Your task to perform on an android device: Go to Yahoo.com Image 0: 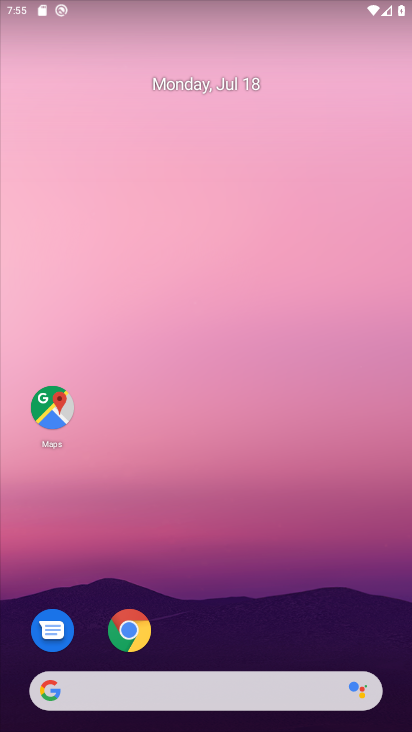
Step 0: click (134, 643)
Your task to perform on an android device: Go to Yahoo.com Image 1: 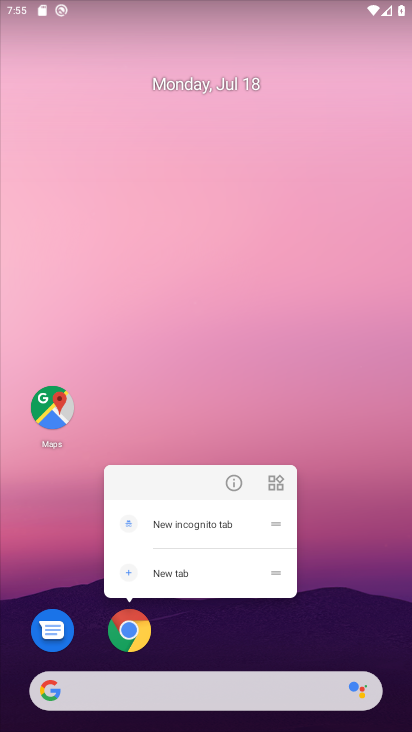
Step 1: click (117, 645)
Your task to perform on an android device: Go to Yahoo.com Image 2: 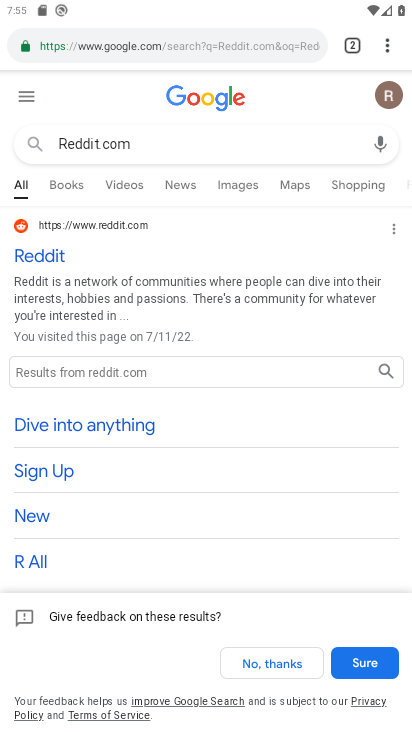
Step 2: click (387, 46)
Your task to perform on an android device: Go to Yahoo.com Image 3: 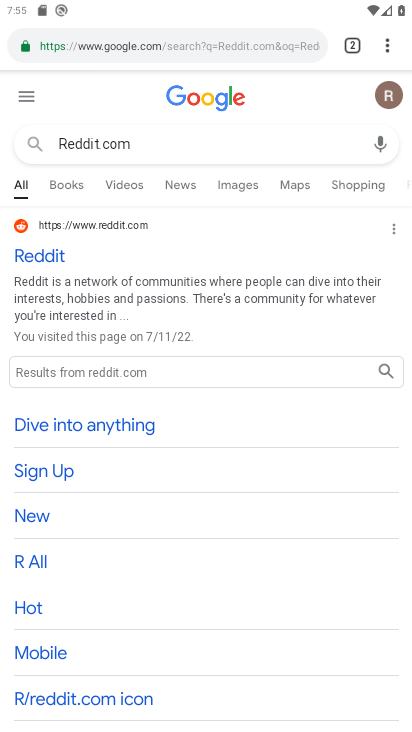
Step 3: click (393, 40)
Your task to perform on an android device: Go to Yahoo.com Image 4: 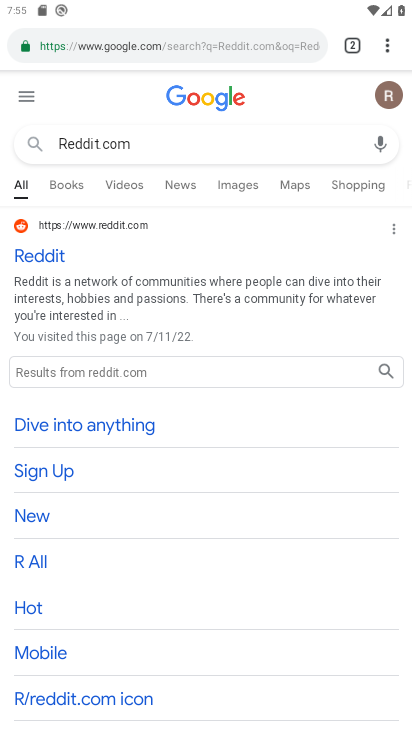
Step 4: click (383, 50)
Your task to perform on an android device: Go to Yahoo.com Image 5: 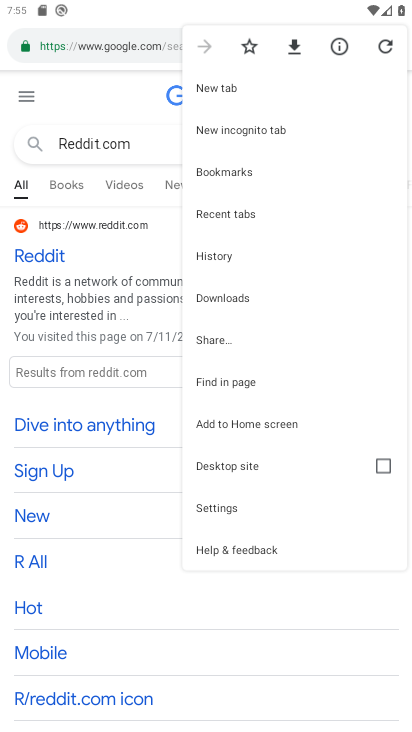
Step 5: click (225, 85)
Your task to perform on an android device: Go to Yahoo.com Image 6: 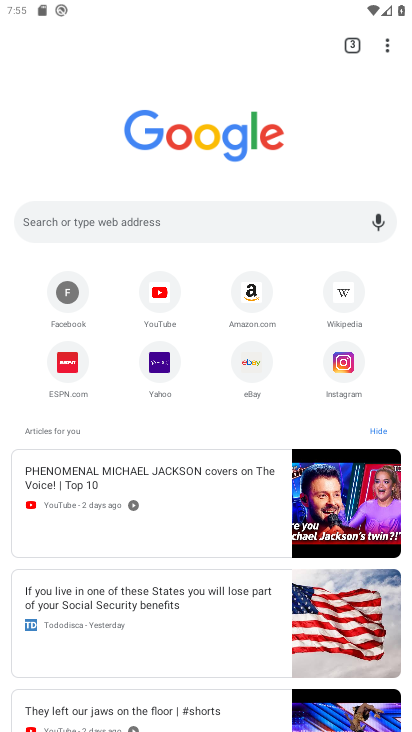
Step 6: click (165, 357)
Your task to perform on an android device: Go to Yahoo.com Image 7: 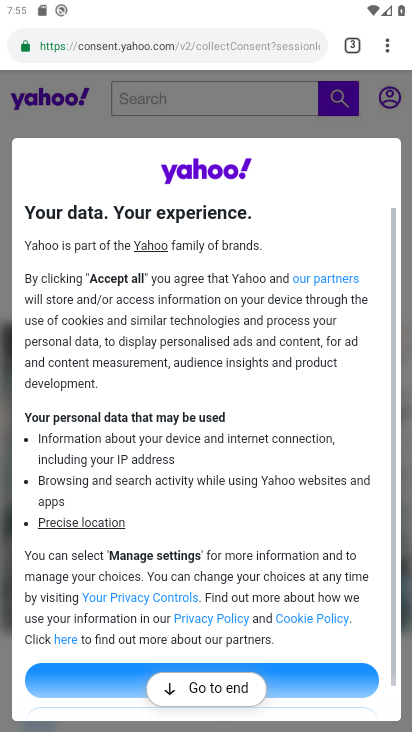
Step 7: task complete